Your task to perform on an android device: Open the phone app and click the voicemail tab. Image 0: 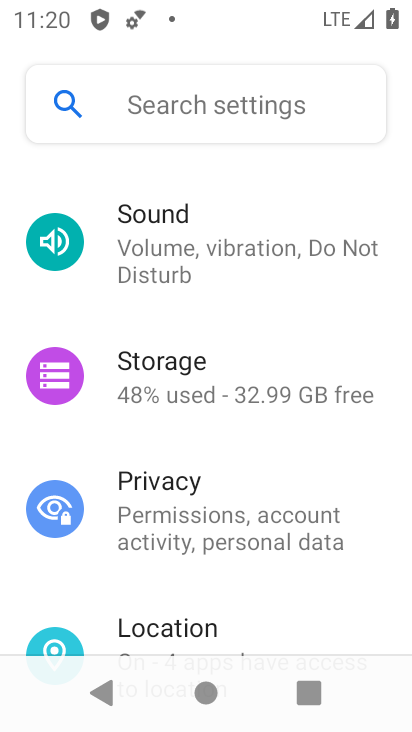
Step 0: press home button
Your task to perform on an android device: Open the phone app and click the voicemail tab. Image 1: 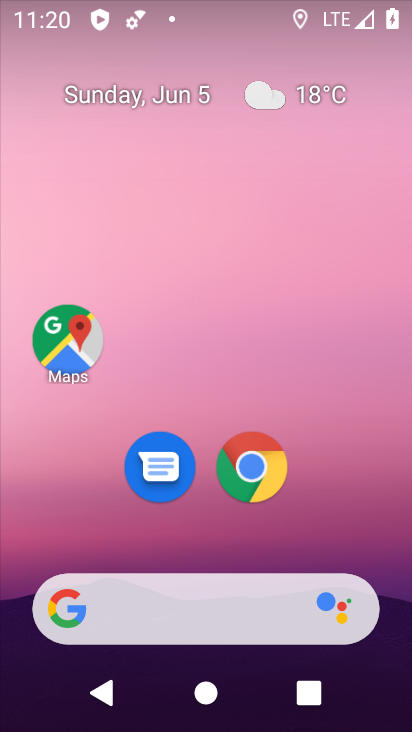
Step 1: drag from (206, 541) to (128, 101)
Your task to perform on an android device: Open the phone app and click the voicemail tab. Image 2: 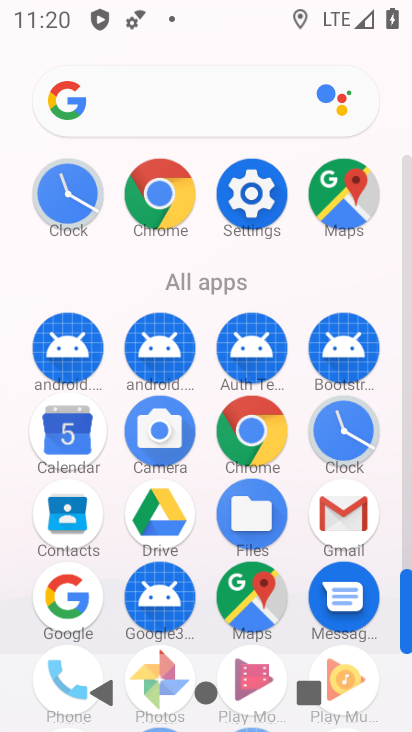
Step 2: click (79, 651)
Your task to perform on an android device: Open the phone app and click the voicemail tab. Image 3: 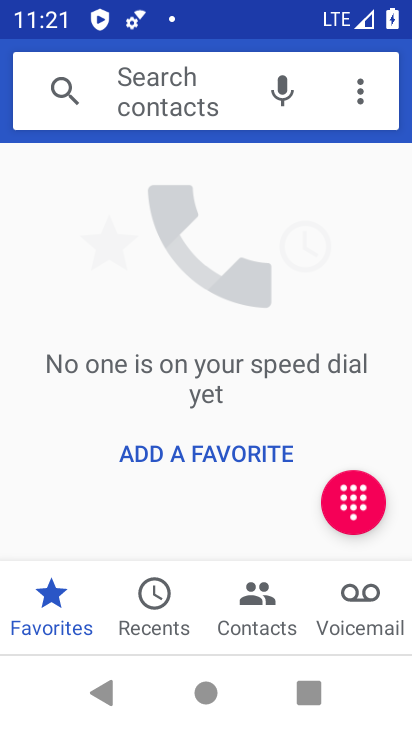
Step 3: click (348, 616)
Your task to perform on an android device: Open the phone app and click the voicemail tab. Image 4: 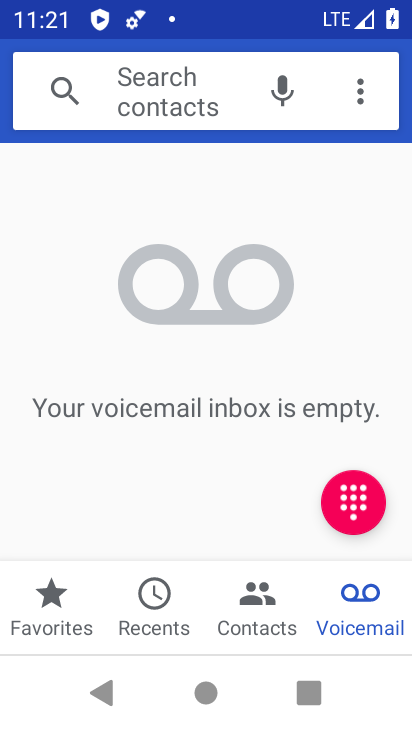
Step 4: task complete